Your task to perform on an android device: Go to Maps Image 0: 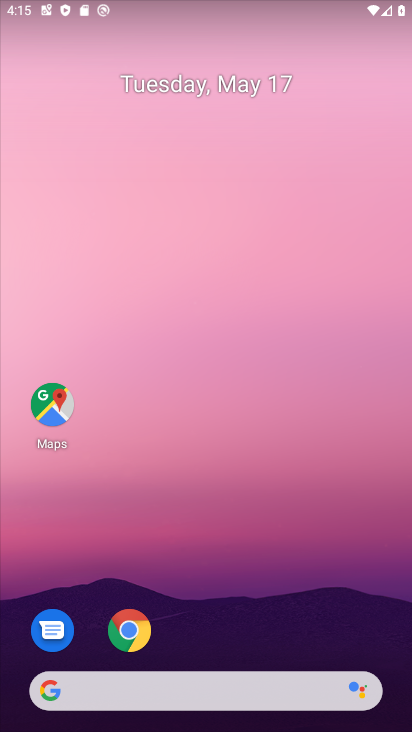
Step 0: drag from (200, 719) to (240, 204)
Your task to perform on an android device: Go to Maps Image 1: 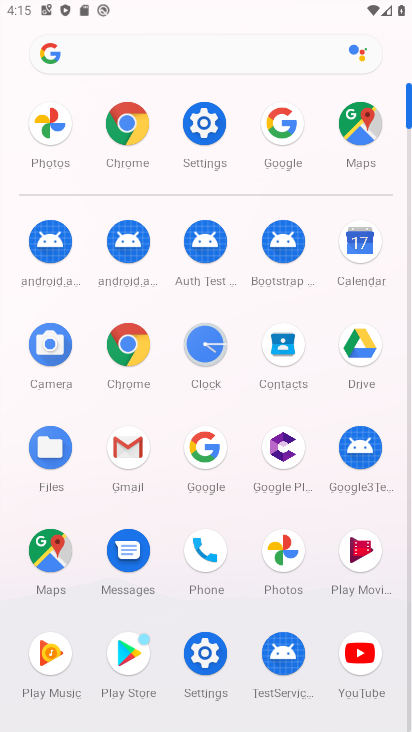
Step 1: click (48, 541)
Your task to perform on an android device: Go to Maps Image 2: 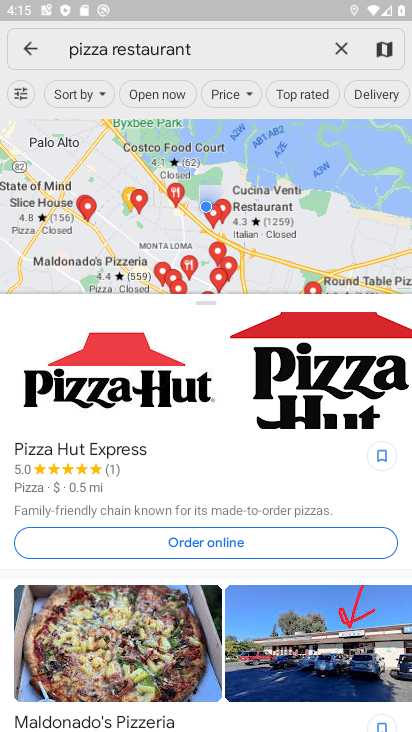
Step 2: task complete